Your task to perform on an android device: Go to notification settings Image 0: 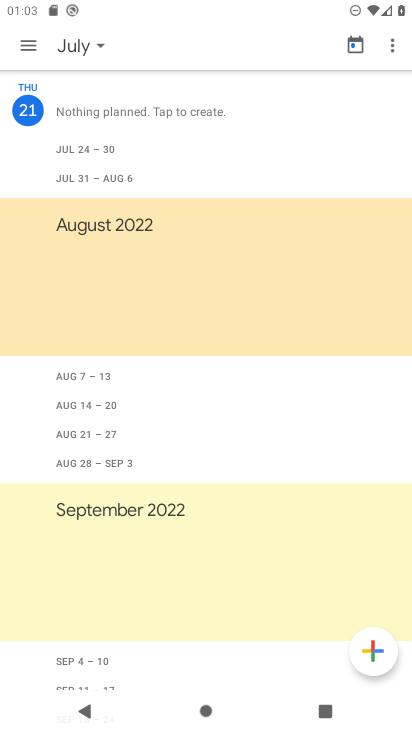
Step 0: press home button
Your task to perform on an android device: Go to notification settings Image 1: 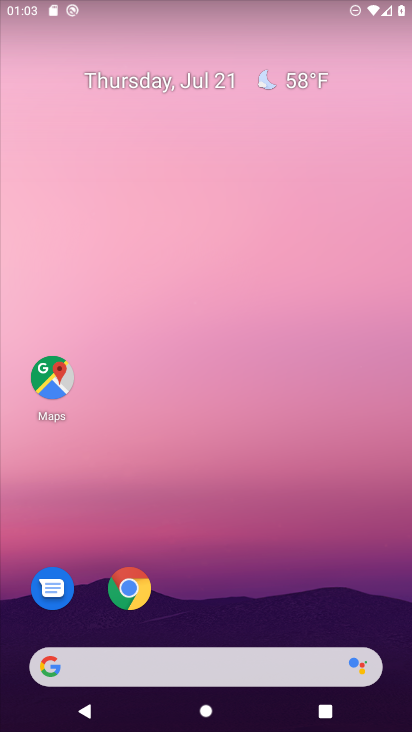
Step 1: drag from (234, 621) to (255, 198)
Your task to perform on an android device: Go to notification settings Image 2: 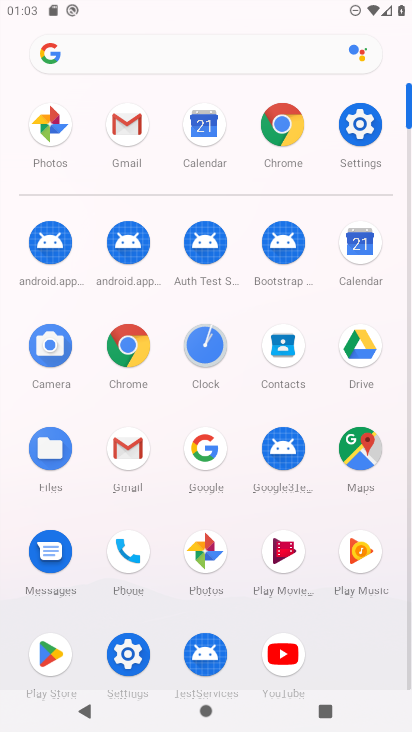
Step 2: click (124, 670)
Your task to perform on an android device: Go to notification settings Image 3: 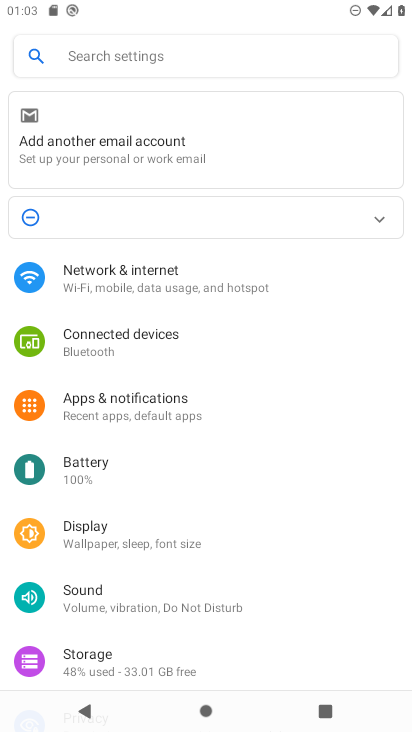
Step 3: click (155, 413)
Your task to perform on an android device: Go to notification settings Image 4: 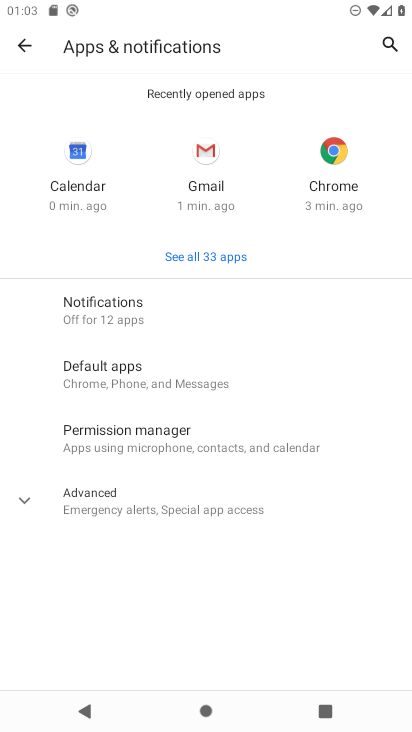
Step 4: click (140, 317)
Your task to perform on an android device: Go to notification settings Image 5: 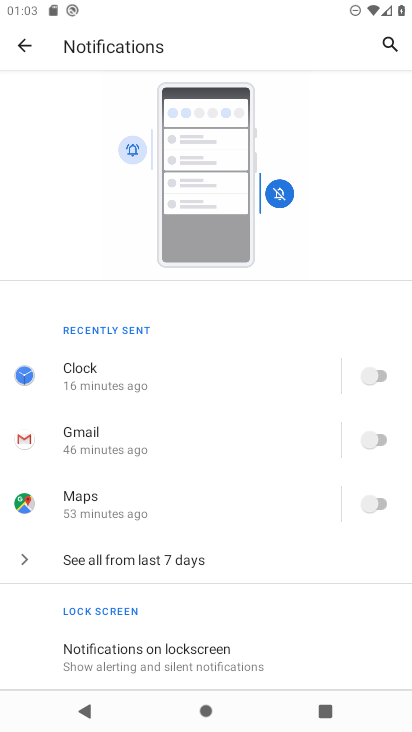
Step 5: task complete